Your task to perform on an android device: Go to Android settings Image 0: 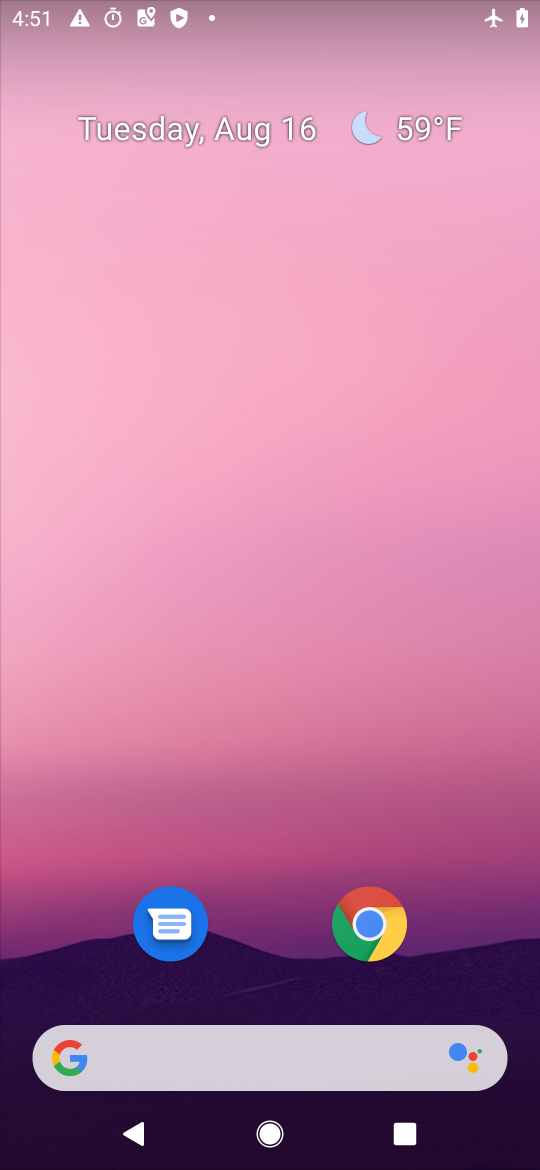
Step 0: click (514, 440)
Your task to perform on an android device: Go to Android settings Image 1: 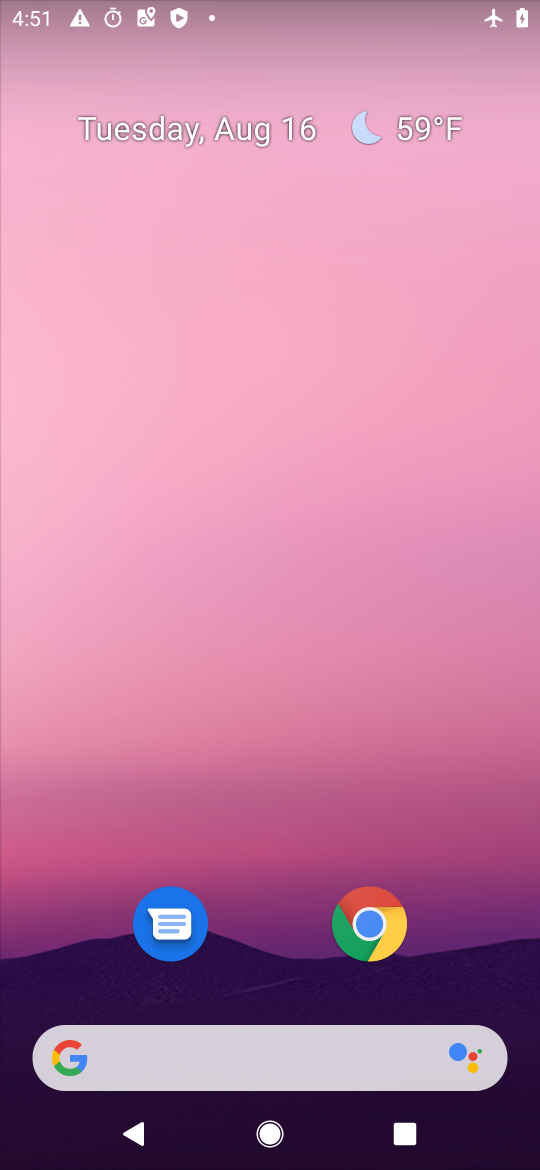
Step 1: drag from (286, 619) to (309, 78)
Your task to perform on an android device: Go to Android settings Image 2: 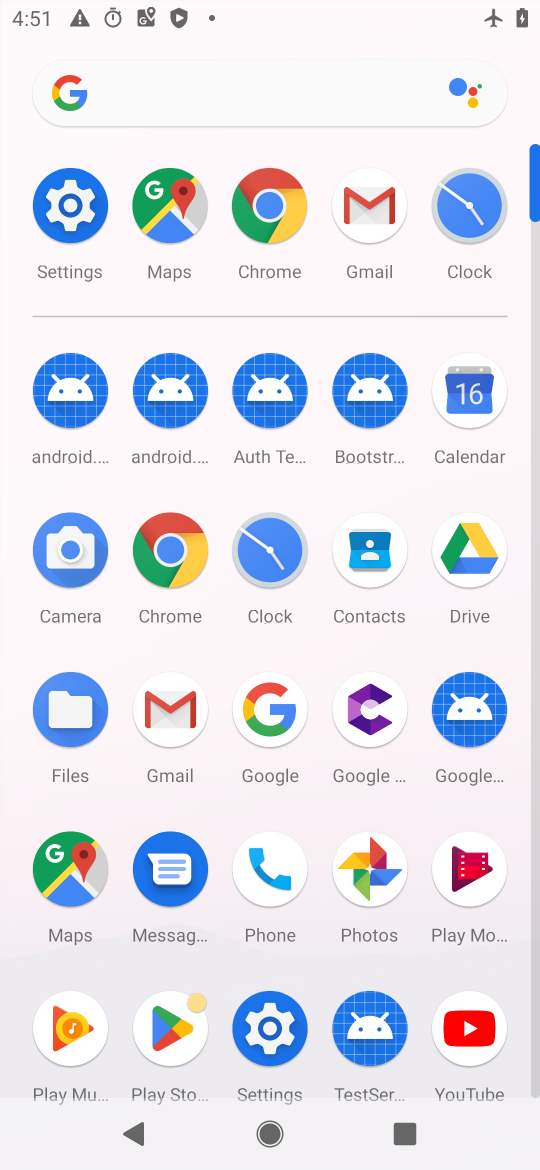
Step 2: click (89, 192)
Your task to perform on an android device: Go to Android settings Image 3: 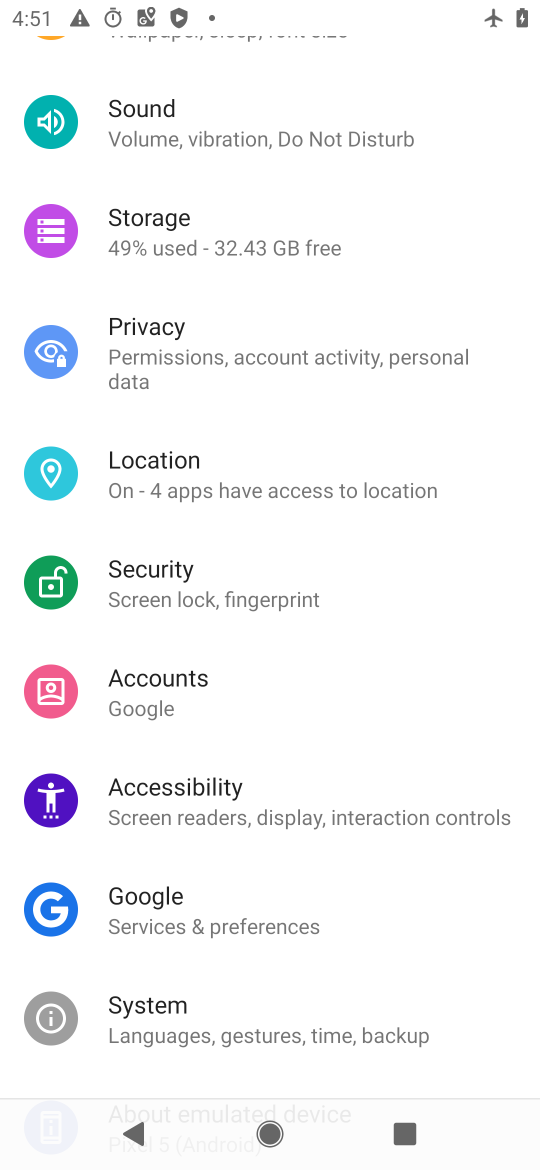
Step 3: task complete